Your task to perform on an android device: add a label to a message in the gmail app Image 0: 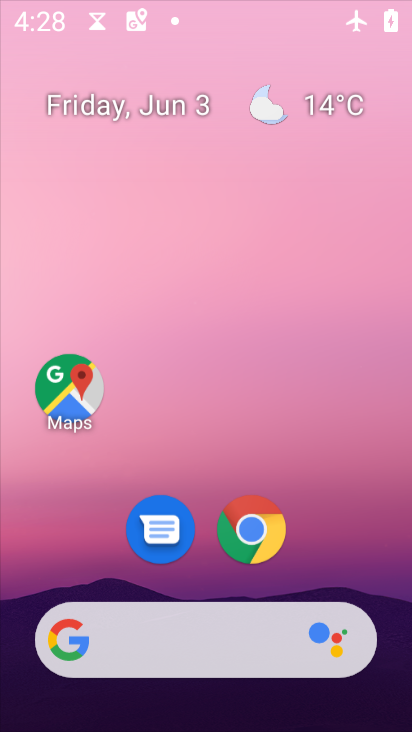
Step 0: drag from (315, 400) to (353, 36)
Your task to perform on an android device: add a label to a message in the gmail app Image 1: 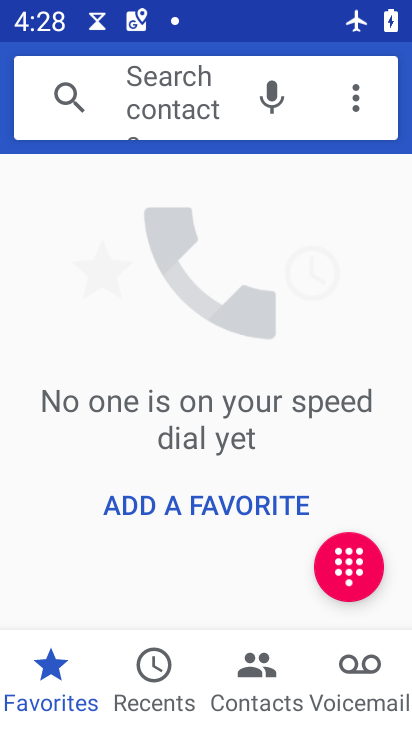
Step 1: press home button
Your task to perform on an android device: add a label to a message in the gmail app Image 2: 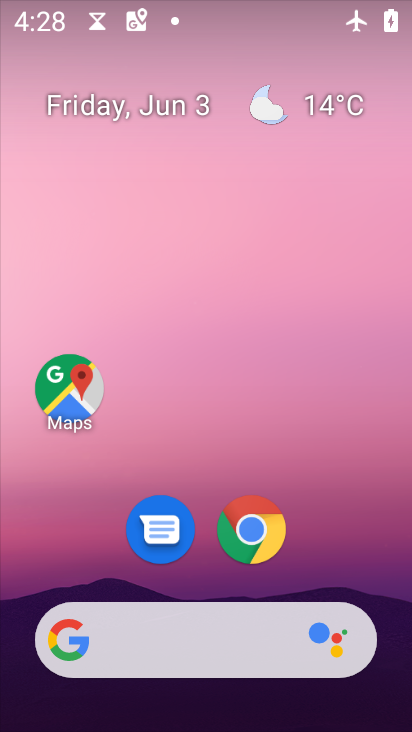
Step 2: drag from (349, 574) to (279, 27)
Your task to perform on an android device: add a label to a message in the gmail app Image 3: 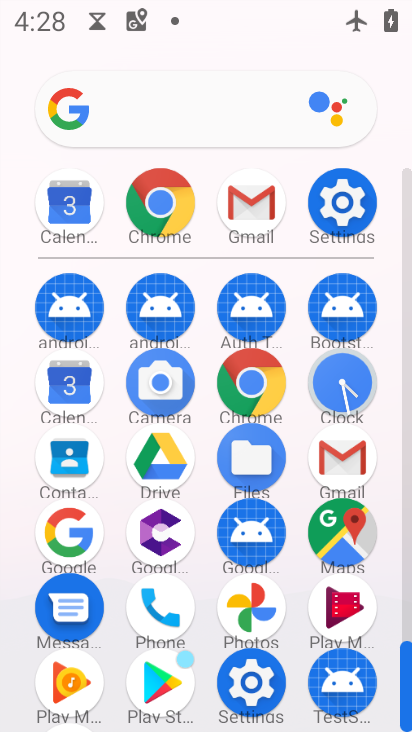
Step 3: click (256, 208)
Your task to perform on an android device: add a label to a message in the gmail app Image 4: 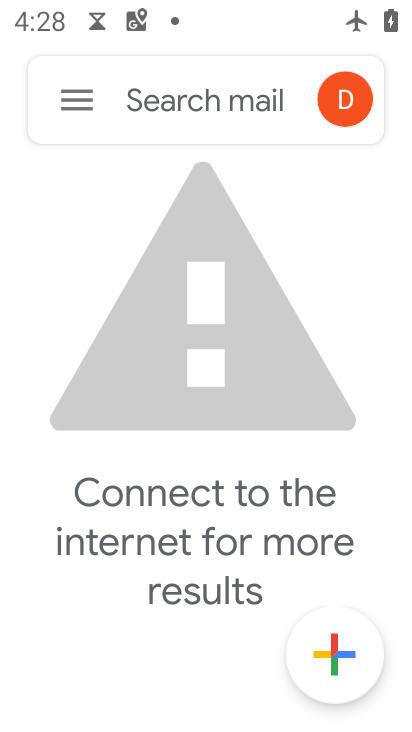
Step 4: task complete